Your task to perform on an android device: Open the phone app and click the voicemail tab. Image 0: 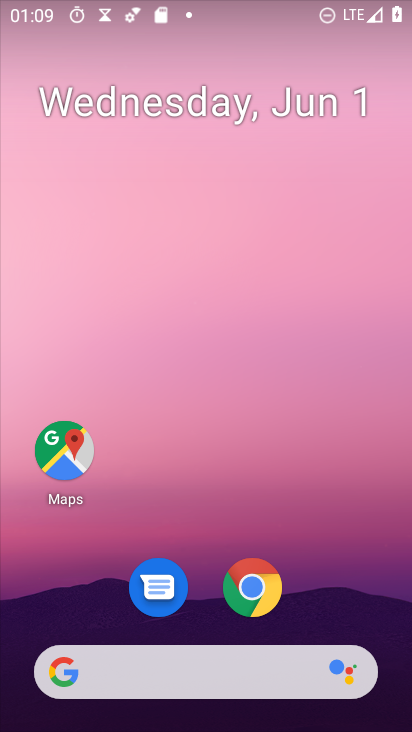
Step 0: drag from (331, 592) to (405, 219)
Your task to perform on an android device: Open the phone app and click the voicemail tab. Image 1: 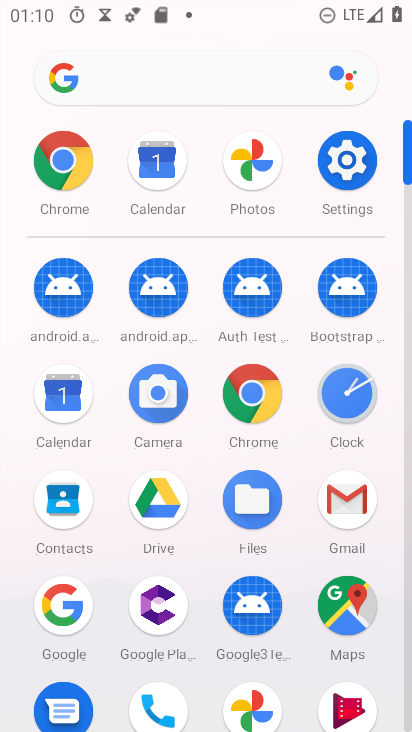
Step 1: click (152, 703)
Your task to perform on an android device: Open the phone app and click the voicemail tab. Image 2: 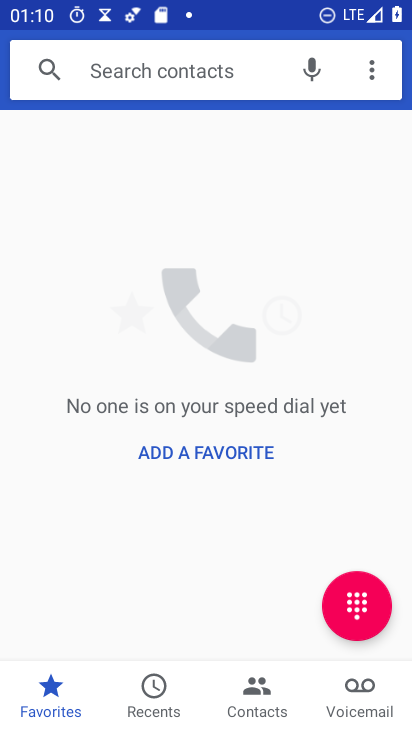
Step 2: click (347, 693)
Your task to perform on an android device: Open the phone app and click the voicemail tab. Image 3: 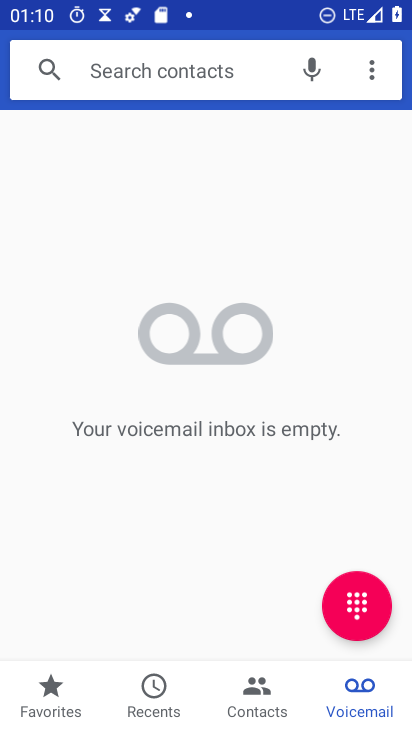
Step 3: task complete